Your task to perform on an android device: Open display settings Image 0: 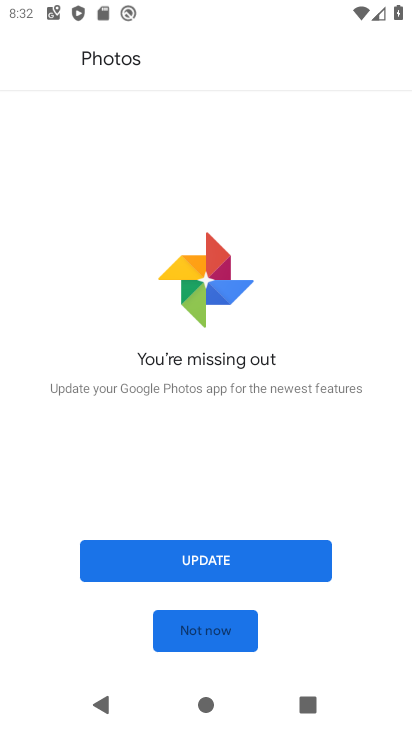
Step 0: press home button
Your task to perform on an android device: Open display settings Image 1: 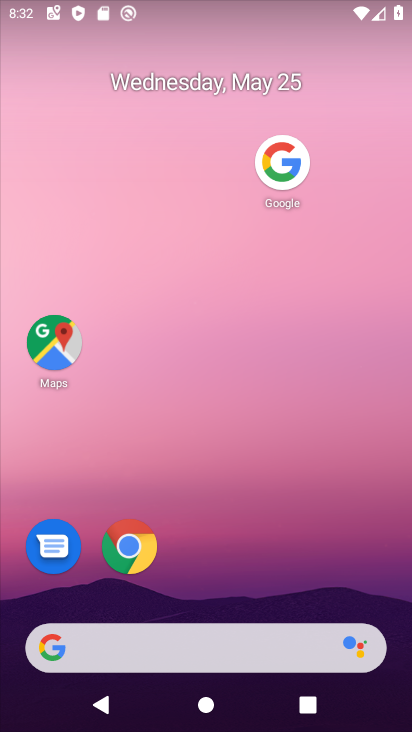
Step 1: drag from (193, 603) to (294, 104)
Your task to perform on an android device: Open display settings Image 2: 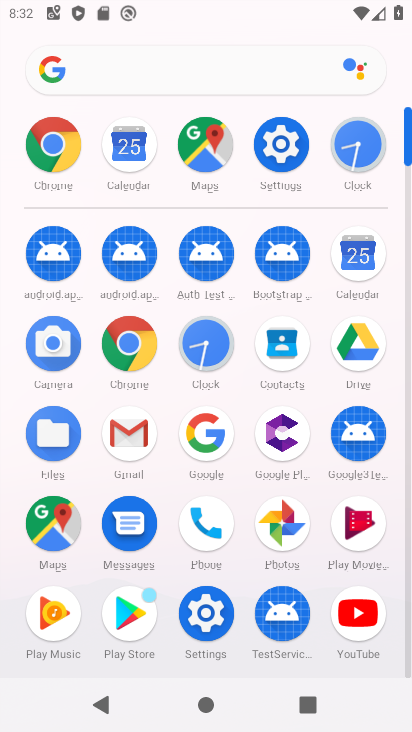
Step 2: click (279, 148)
Your task to perform on an android device: Open display settings Image 3: 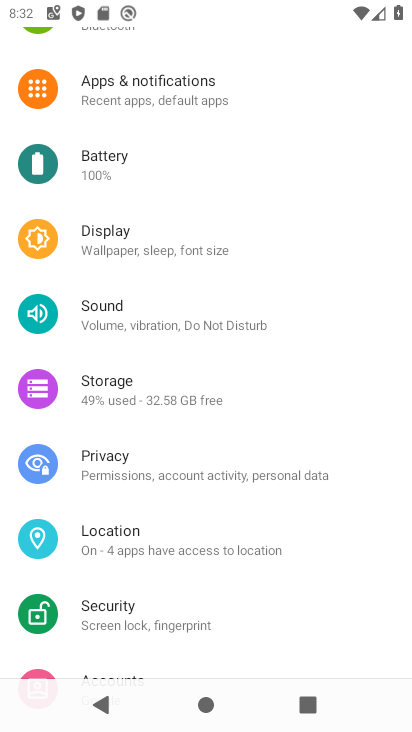
Step 3: click (114, 232)
Your task to perform on an android device: Open display settings Image 4: 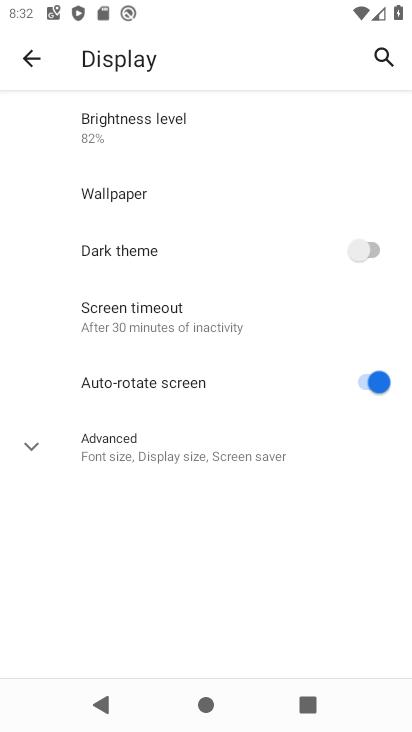
Step 4: task complete